Your task to perform on an android device: turn on javascript in the chrome app Image 0: 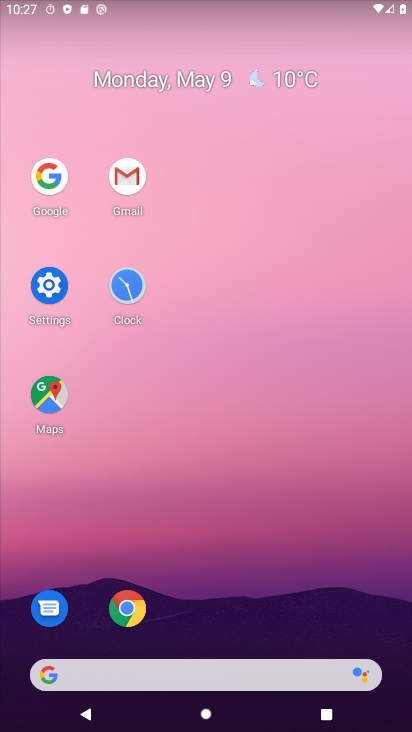
Step 0: click (132, 595)
Your task to perform on an android device: turn on javascript in the chrome app Image 1: 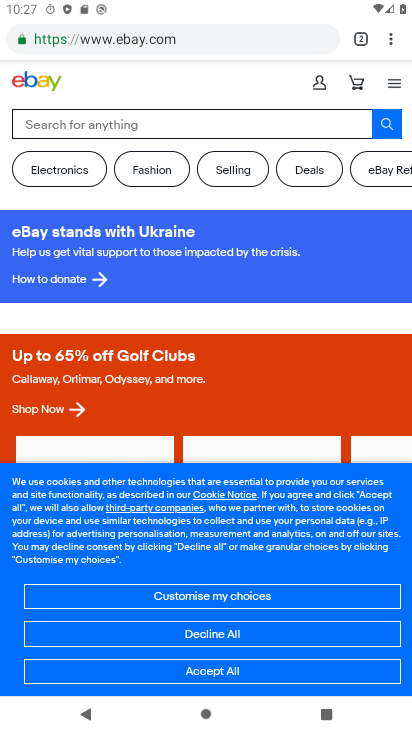
Step 1: click (385, 31)
Your task to perform on an android device: turn on javascript in the chrome app Image 2: 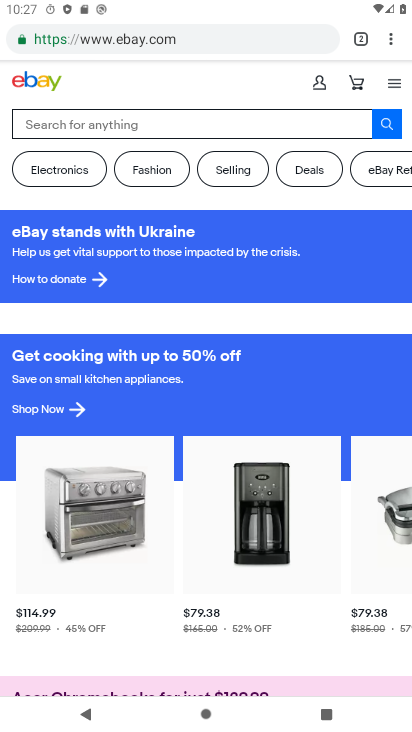
Step 2: click (392, 27)
Your task to perform on an android device: turn on javascript in the chrome app Image 3: 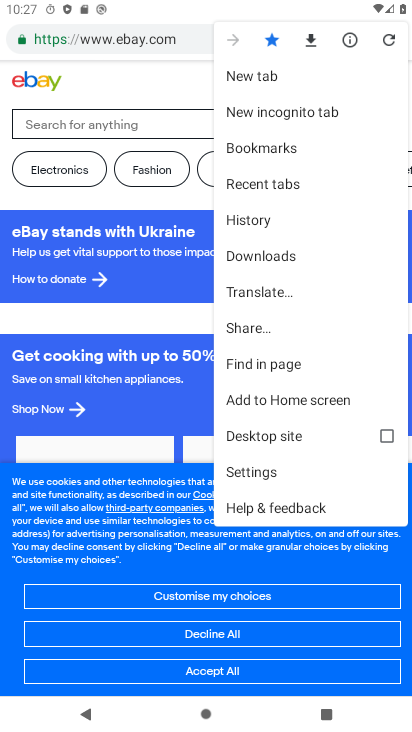
Step 3: drag from (259, 453) to (285, 246)
Your task to perform on an android device: turn on javascript in the chrome app Image 4: 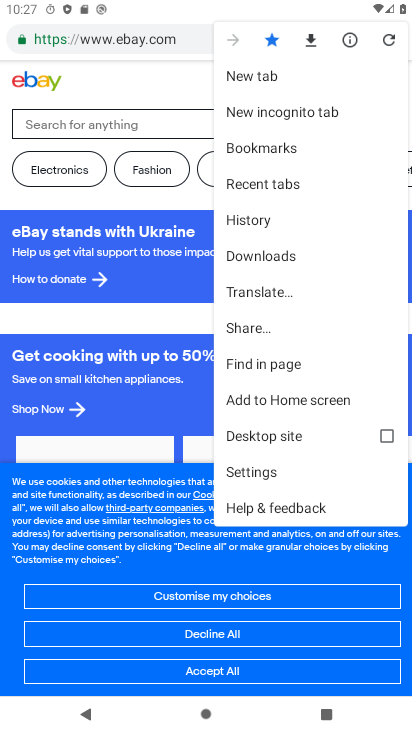
Step 4: click (237, 478)
Your task to perform on an android device: turn on javascript in the chrome app Image 5: 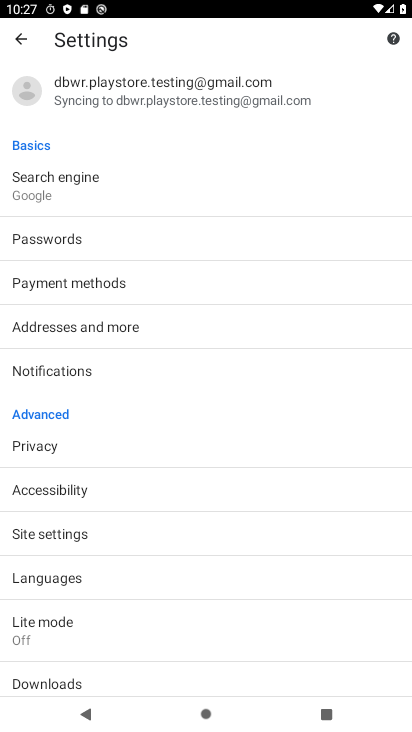
Step 5: click (163, 540)
Your task to perform on an android device: turn on javascript in the chrome app Image 6: 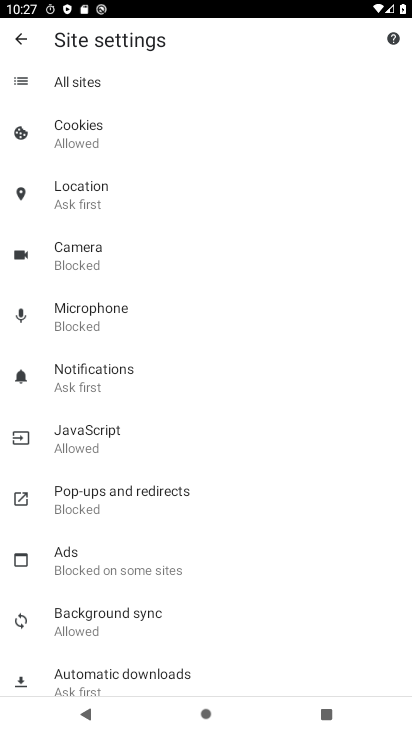
Step 6: click (164, 426)
Your task to perform on an android device: turn on javascript in the chrome app Image 7: 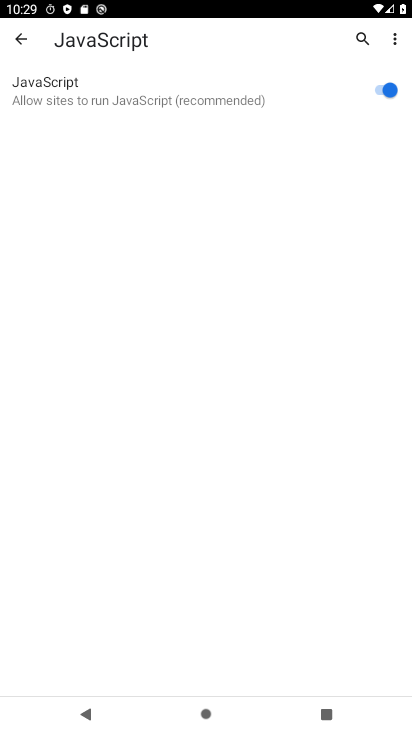
Step 7: task complete